Your task to perform on an android device: Go to eBay Image 0: 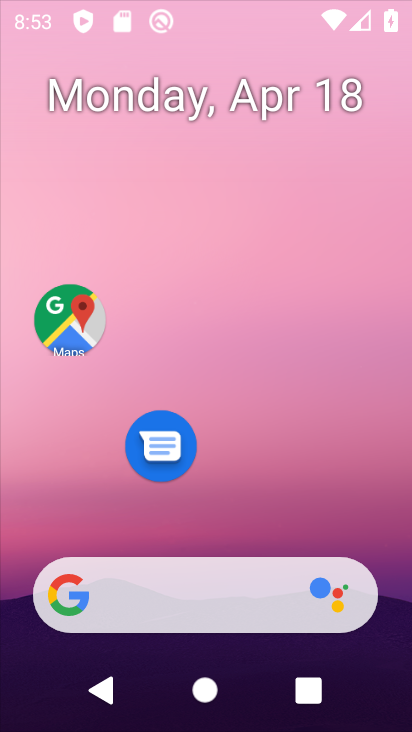
Step 0: drag from (258, 217) to (261, 5)
Your task to perform on an android device: Go to eBay Image 1: 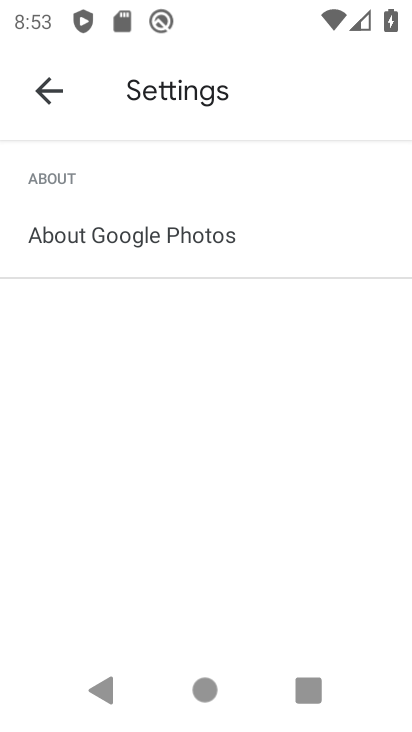
Step 1: press home button
Your task to perform on an android device: Go to eBay Image 2: 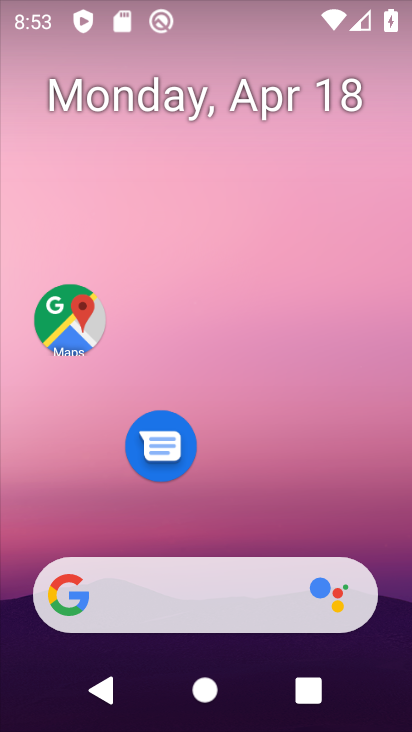
Step 2: drag from (213, 512) to (258, 24)
Your task to perform on an android device: Go to eBay Image 3: 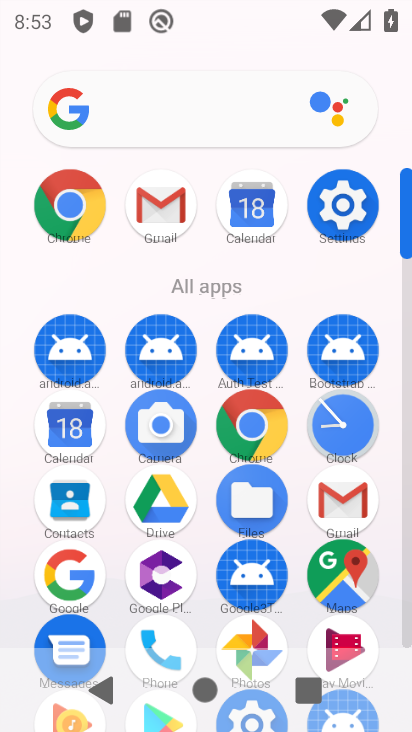
Step 3: click (67, 202)
Your task to perform on an android device: Go to eBay Image 4: 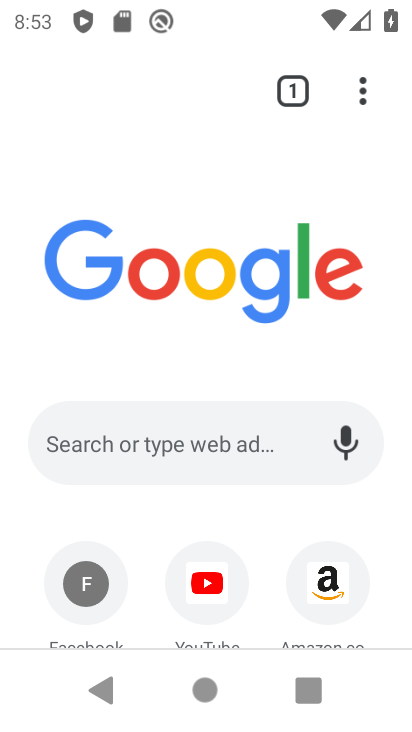
Step 4: click (174, 434)
Your task to perform on an android device: Go to eBay Image 5: 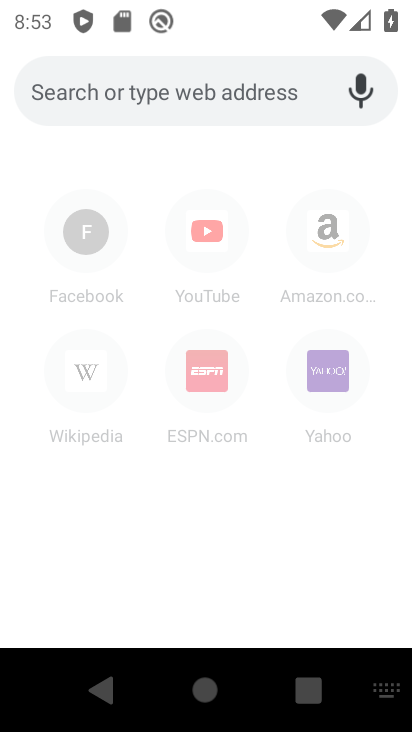
Step 5: type "ebay"
Your task to perform on an android device: Go to eBay Image 6: 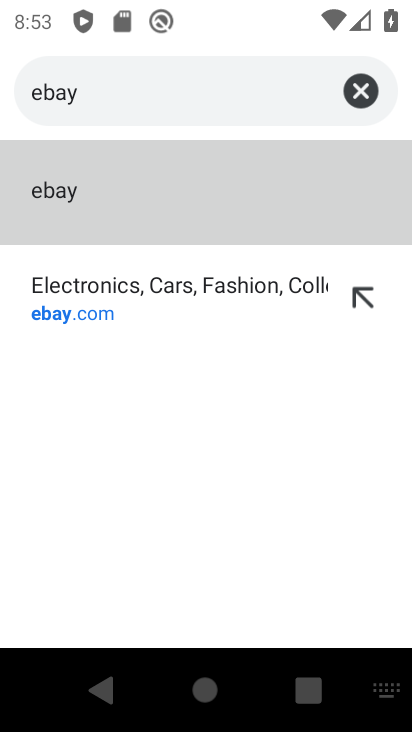
Step 6: click (135, 195)
Your task to perform on an android device: Go to eBay Image 7: 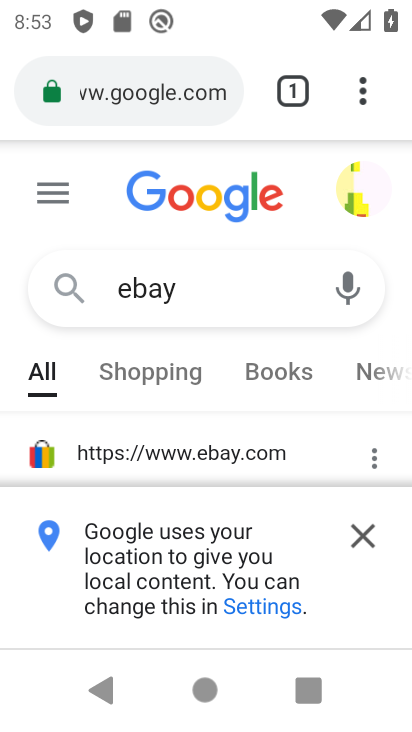
Step 7: click (360, 537)
Your task to perform on an android device: Go to eBay Image 8: 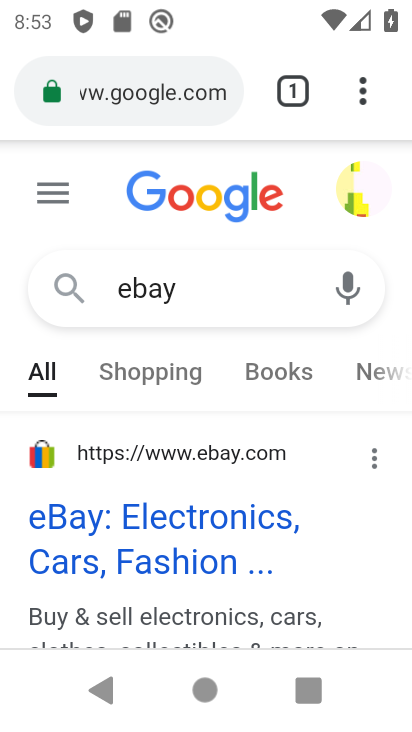
Step 8: click (189, 537)
Your task to perform on an android device: Go to eBay Image 9: 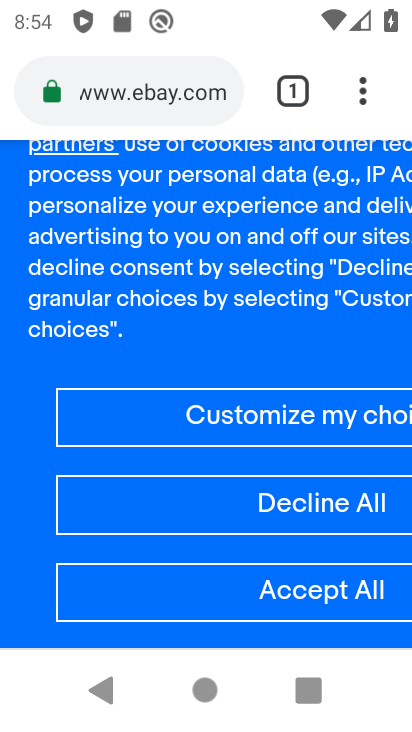
Step 9: click (316, 410)
Your task to perform on an android device: Go to eBay Image 10: 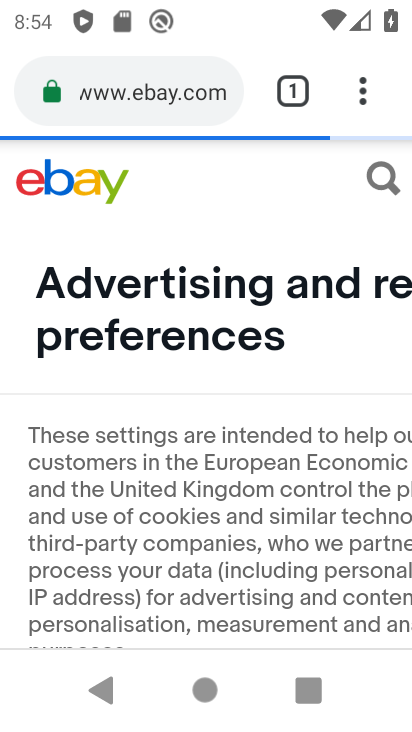
Step 10: task complete